Your task to perform on an android device: delete a single message in the gmail app Image 0: 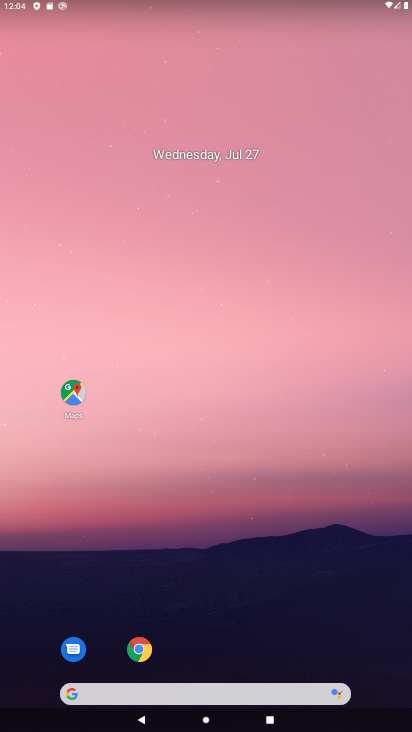
Step 0: drag from (228, 576) to (218, 169)
Your task to perform on an android device: delete a single message in the gmail app Image 1: 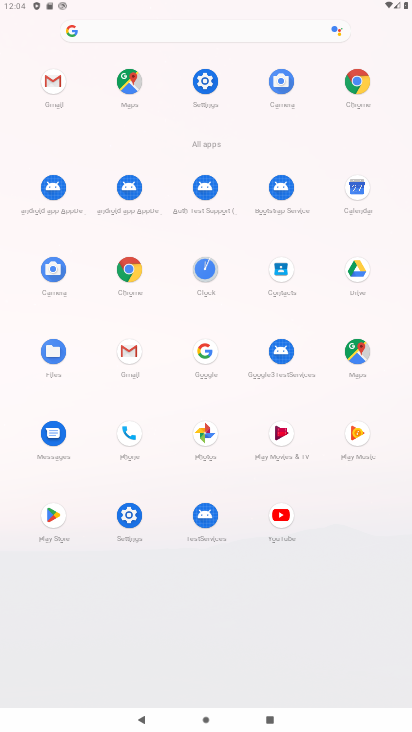
Step 1: click (48, 80)
Your task to perform on an android device: delete a single message in the gmail app Image 2: 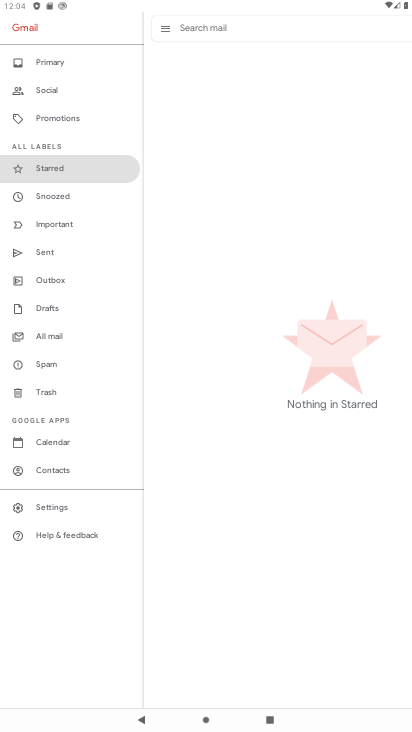
Step 2: click (52, 334)
Your task to perform on an android device: delete a single message in the gmail app Image 3: 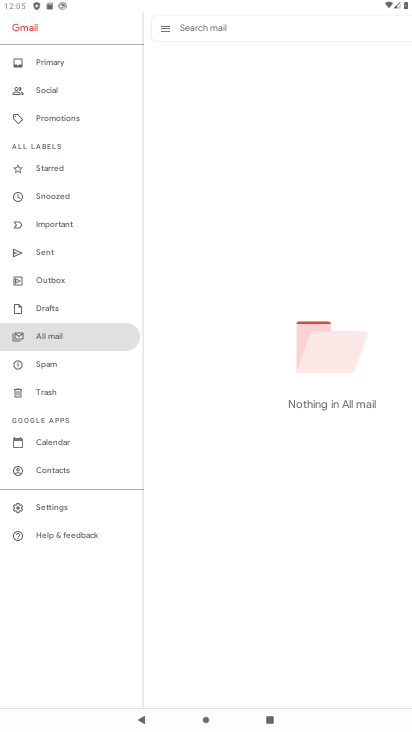
Step 3: click (71, 335)
Your task to perform on an android device: delete a single message in the gmail app Image 4: 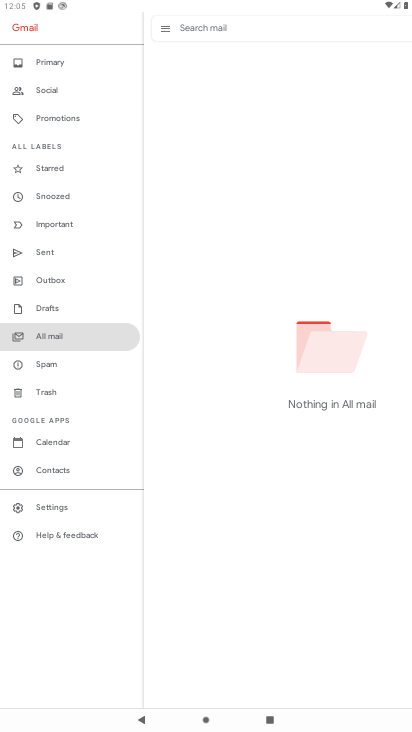
Step 4: task complete